Your task to perform on an android device: Search for Italian restaurants on Maps Image 0: 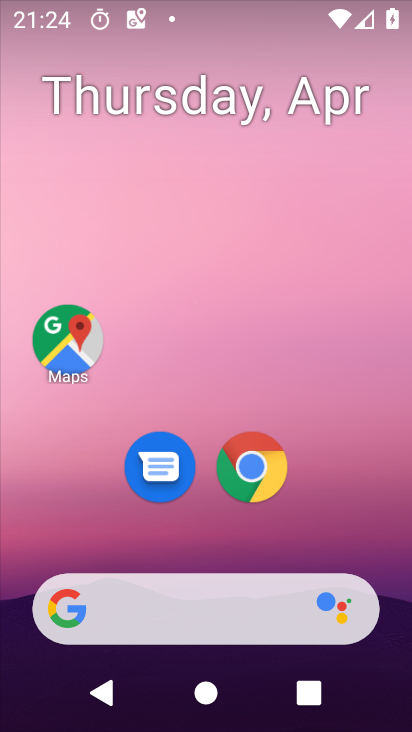
Step 0: drag from (216, 564) to (196, 14)
Your task to perform on an android device: Search for Italian restaurants on Maps Image 1: 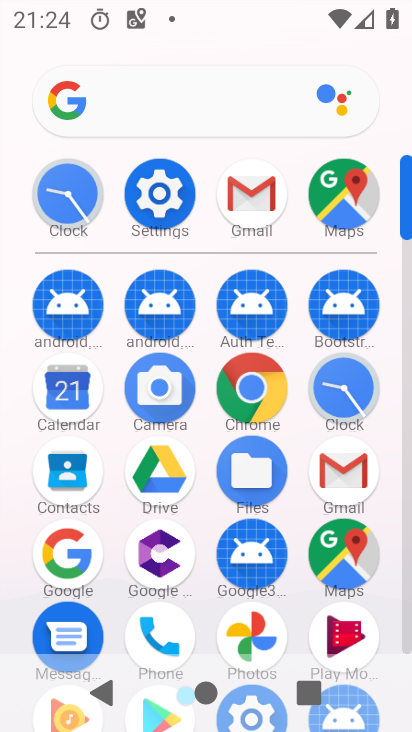
Step 1: click (333, 567)
Your task to perform on an android device: Search for Italian restaurants on Maps Image 2: 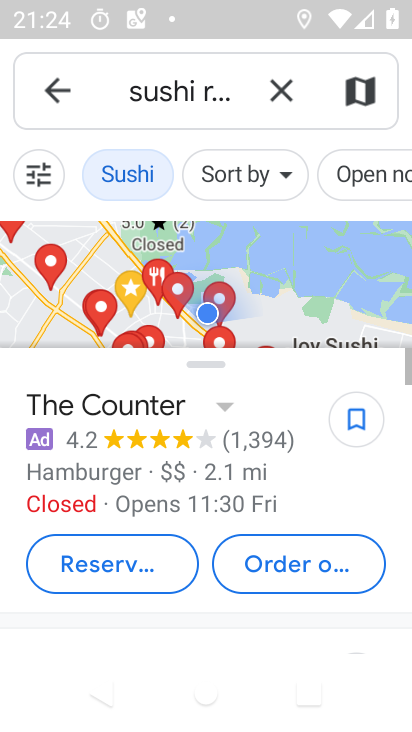
Step 2: click (41, 85)
Your task to perform on an android device: Search for Italian restaurants on Maps Image 3: 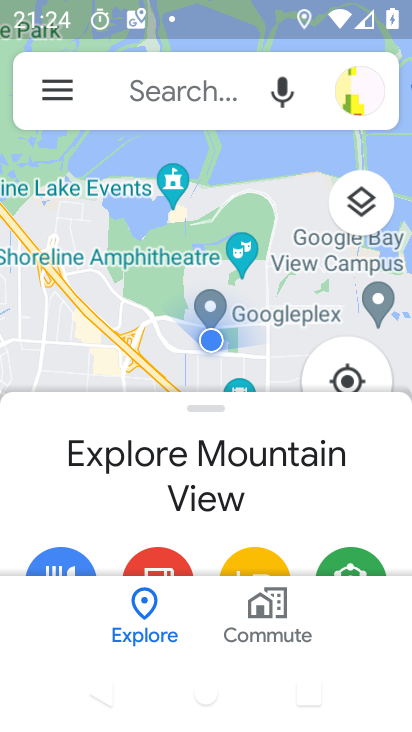
Step 3: click (160, 76)
Your task to perform on an android device: Search for Italian restaurants on Maps Image 4: 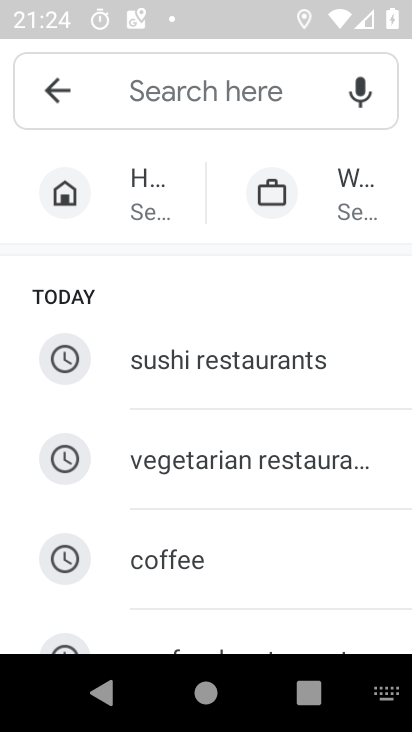
Step 4: drag from (177, 531) to (178, 130)
Your task to perform on an android device: Search for Italian restaurants on Maps Image 5: 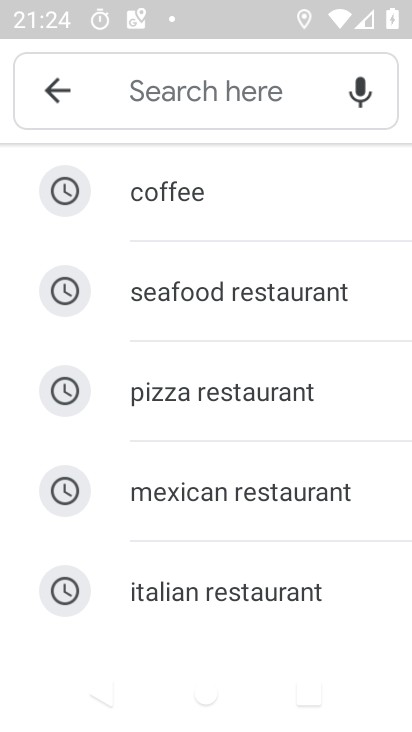
Step 5: click (162, 592)
Your task to perform on an android device: Search for Italian restaurants on Maps Image 6: 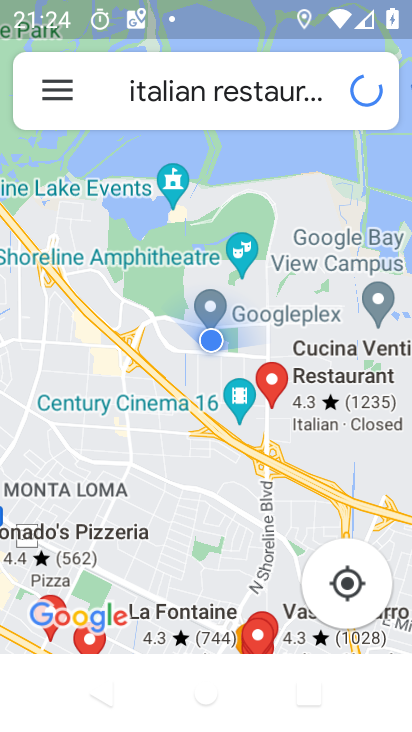
Step 6: task complete